Your task to perform on an android device: Search for vegetarian restaurants on Maps Image 0: 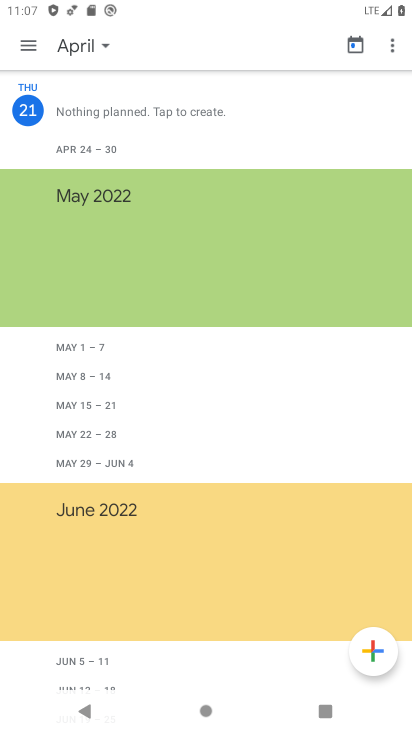
Step 0: press home button
Your task to perform on an android device: Search for vegetarian restaurants on Maps Image 1: 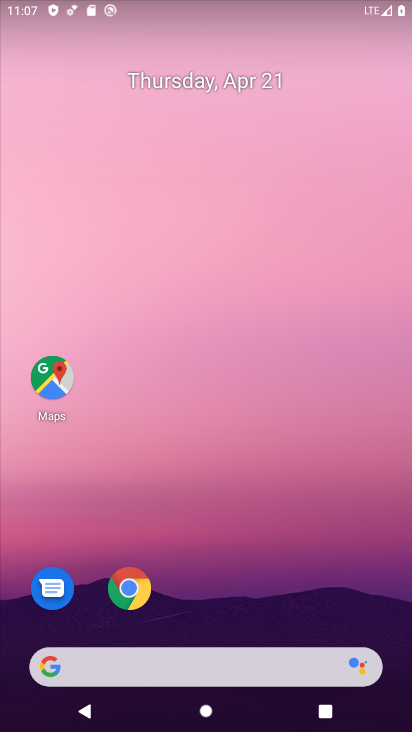
Step 1: drag from (227, 640) to (167, 157)
Your task to perform on an android device: Search for vegetarian restaurants on Maps Image 2: 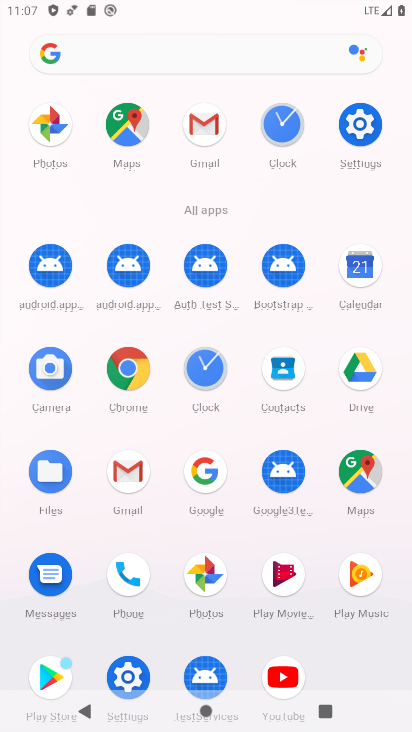
Step 2: click (354, 476)
Your task to perform on an android device: Search for vegetarian restaurants on Maps Image 3: 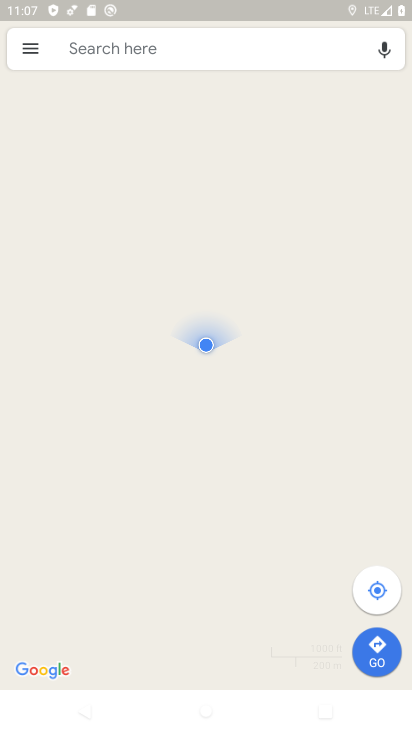
Step 3: click (177, 51)
Your task to perform on an android device: Search for vegetarian restaurants on Maps Image 4: 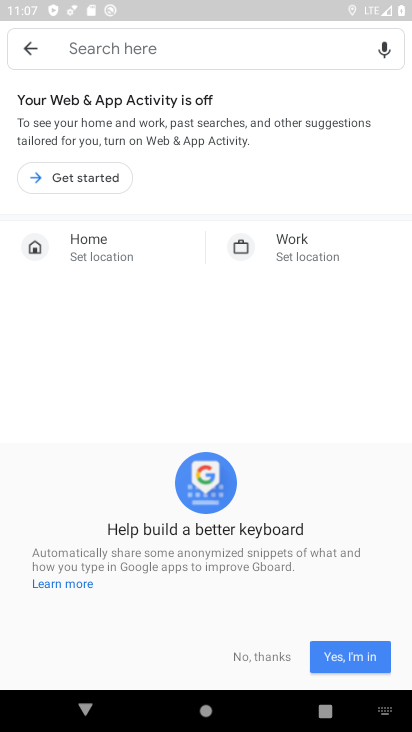
Step 4: click (276, 654)
Your task to perform on an android device: Search for vegetarian restaurants on Maps Image 5: 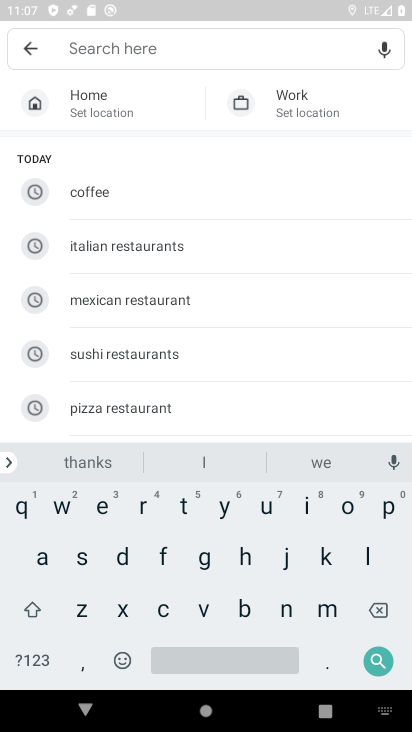
Step 5: click (201, 605)
Your task to perform on an android device: Search for vegetarian restaurants on Maps Image 6: 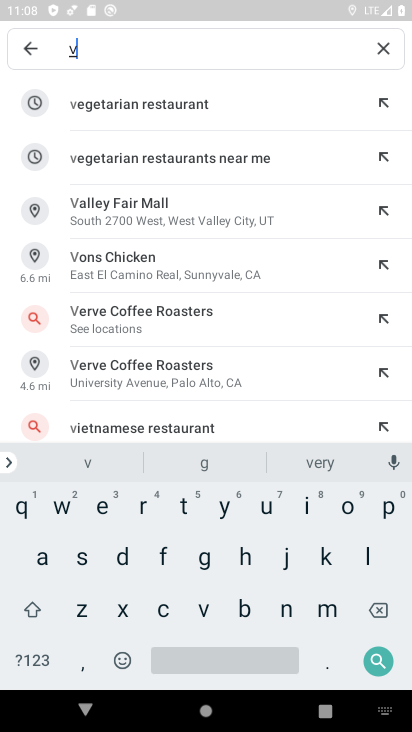
Step 6: click (158, 100)
Your task to perform on an android device: Search for vegetarian restaurants on Maps Image 7: 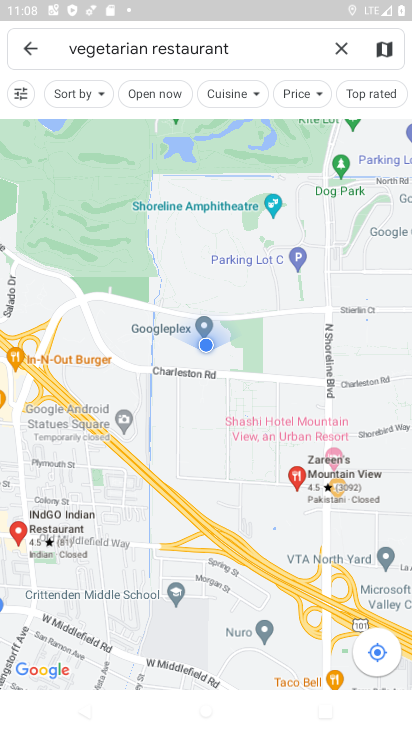
Step 7: task complete